Your task to perform on an android device: turn off data saver in the chrome app Image 0: 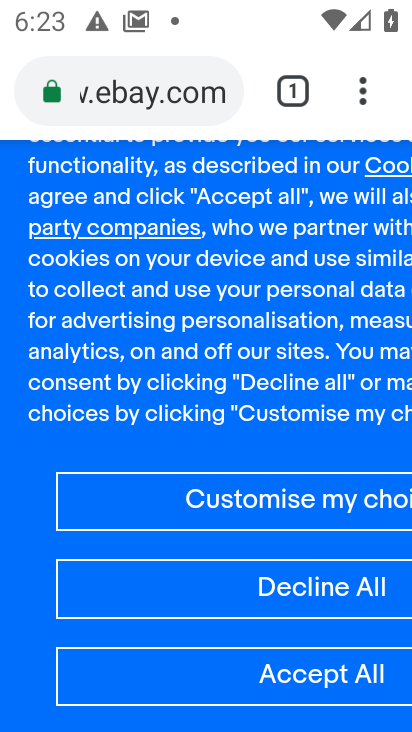
Step 0: press home button
Your task to perform on an android device: turn off data saver in the chrome app Image 1: 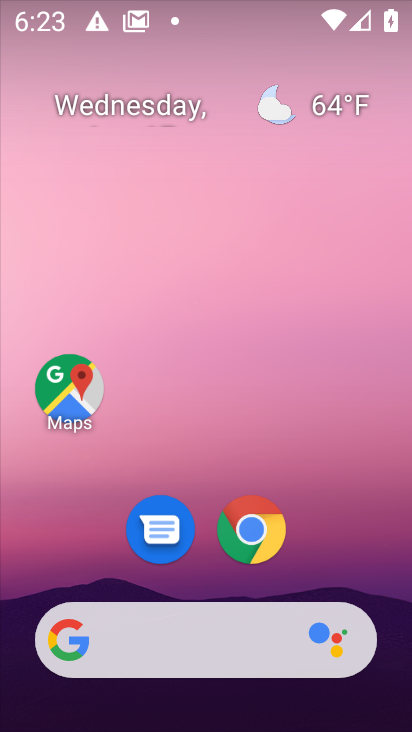
Step 1: click (253, 534)
Your task to perform on an android device: turn off data saver in the chrome app Image 2: 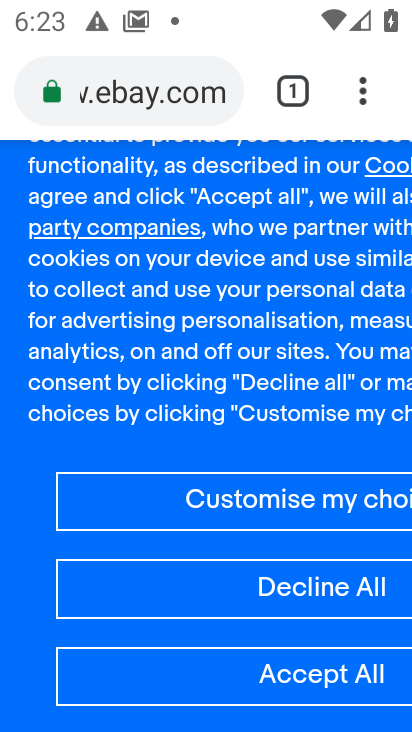
Step 2: click (362, 97)
Your task to perform on an android device: turn off data saver in the chrome app Image 3: 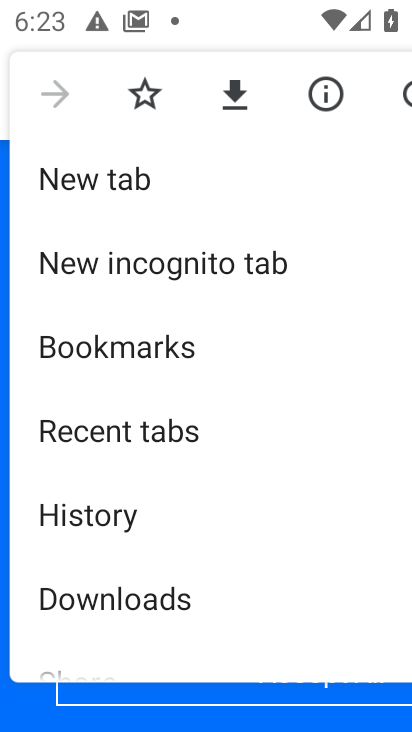
Step 3: drag from (182, 488) to (174, 314)
Your task to perform on an android device: turn off data saver in the chrome app Image 4: 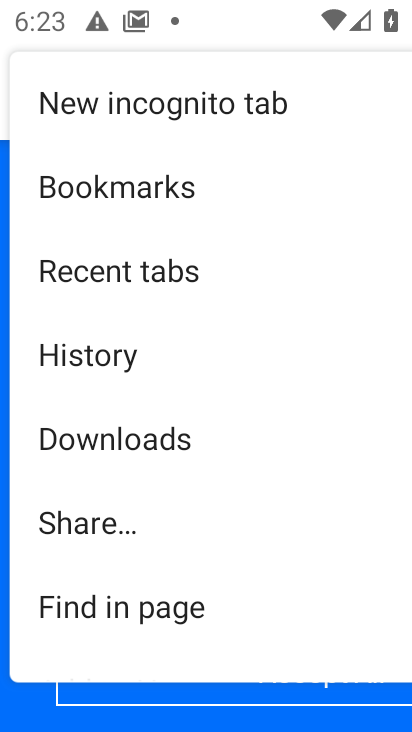
Step 4: drag from (229, 575) to (193, 263)
Your task to perform on an android device: turn off data saver in the chrome app Image 5: 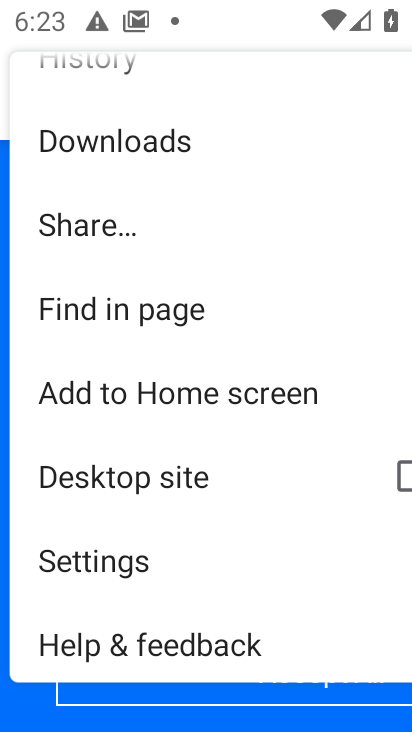
Step 5: click (106, 557)
Your task to perform on an android device: turn off data saver in the chrome app Image 6: 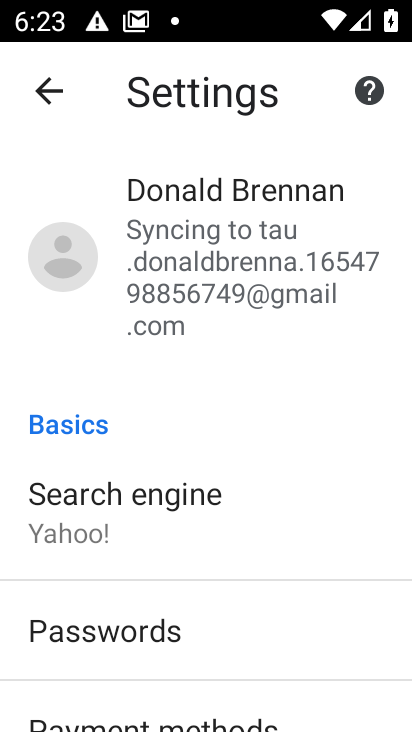
Step 6: drag from (196, 674) to (159, 479)
Your task to perform on an android device: turn off data saver in the chrome app Image 7: 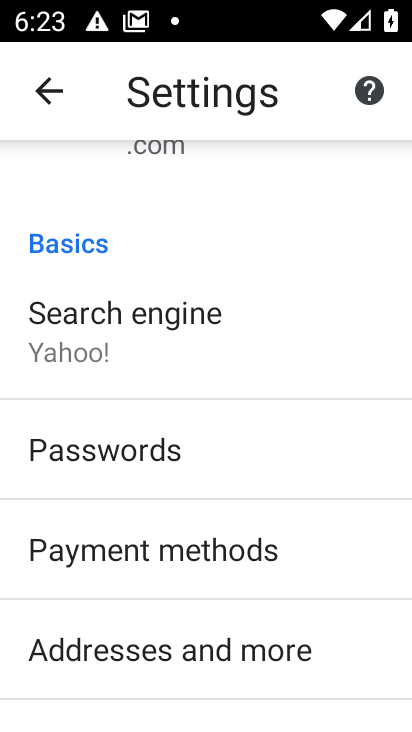
Step 7: drag from (228, 687) to (205, 245)
Your task to perform on an android device: turn off data saver in the chrome app Image 8: 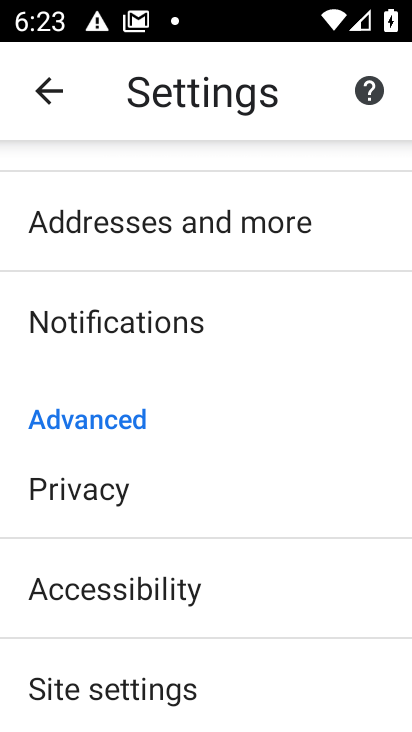
Step 8: drag from (253, 666) to (222, 341)
Your task to perform on an android device: turn off data saver in the chrome app Image 9: 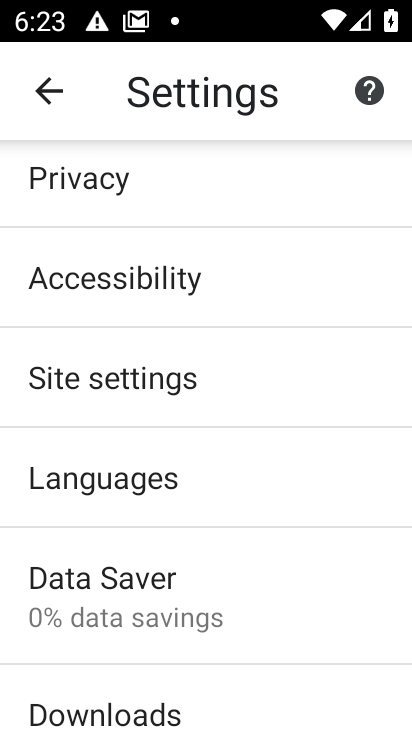
Step 9: click (94, 594)
Your task to perform on an android device: turn off data saver in the chrome app Image 10: 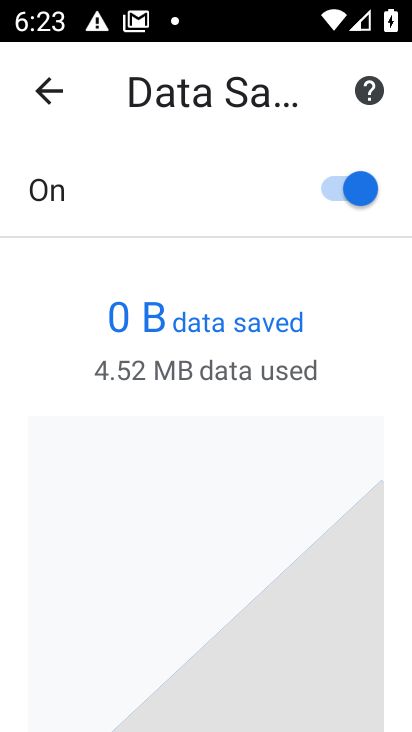
Step 10: click (322, 198)
Your task to perform on an android device: turn off data saver in the chrome app Image 11: 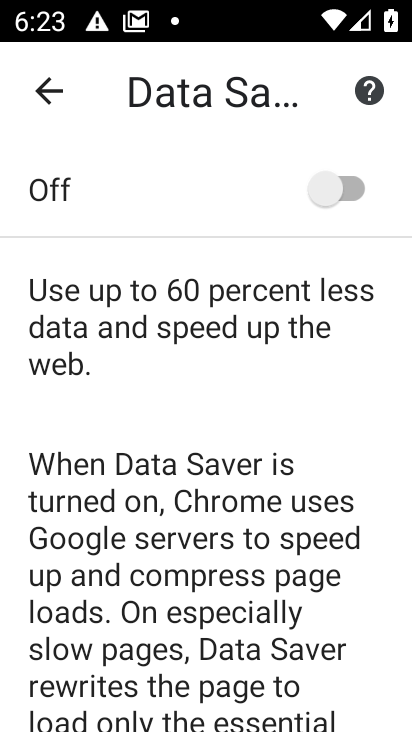
Step 11: task complete